Your task to perform on an android device: Go to accessibility settings Image 0: 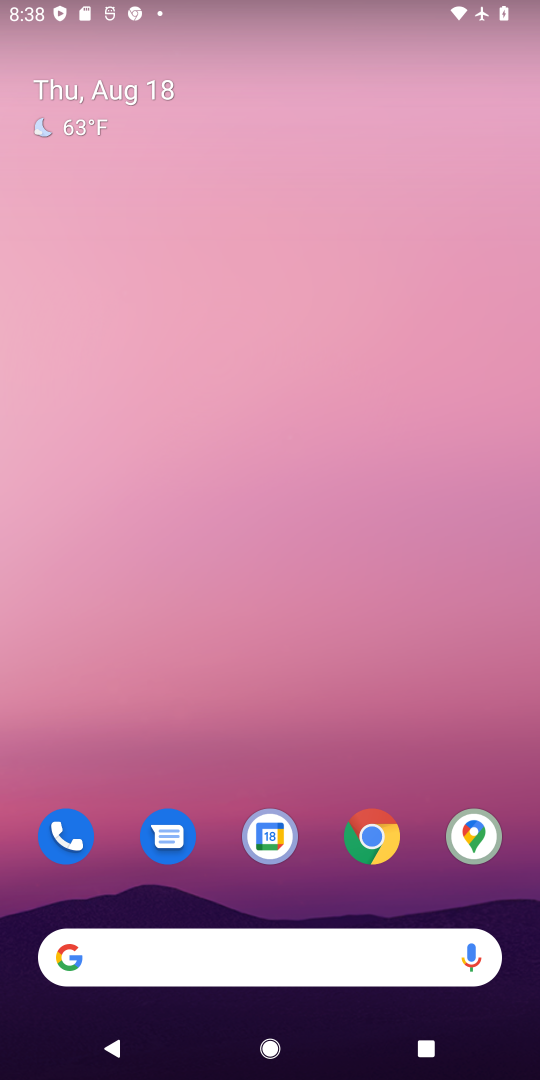
Step 0: drag from (320, 885) to (339, 175)
Your task to perform on an android device: Go to accessibility settings Image 1: 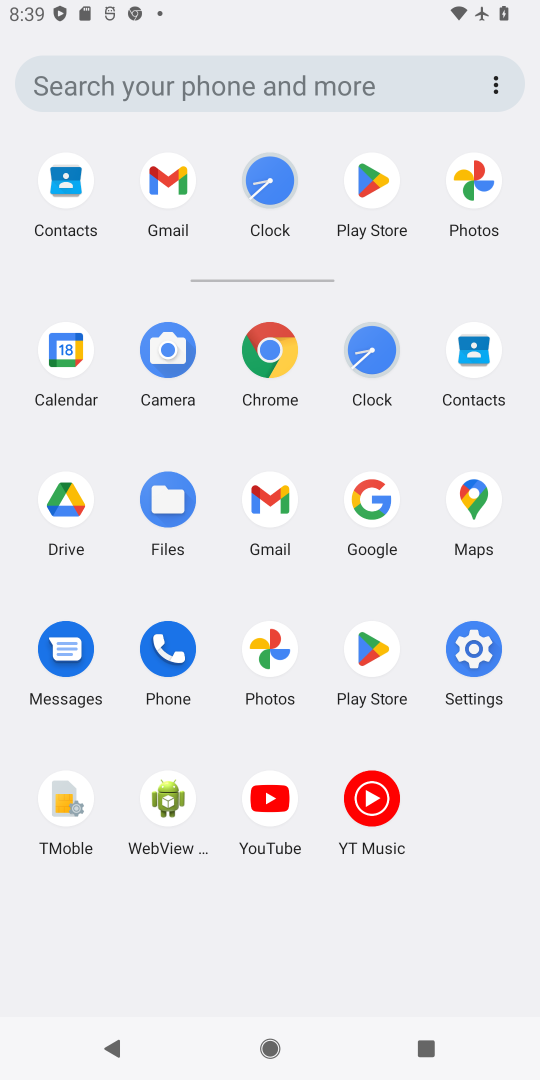
Step 1: click (480, 638)
Your task to perform on an android device: Go to accessibility settings Image 2: 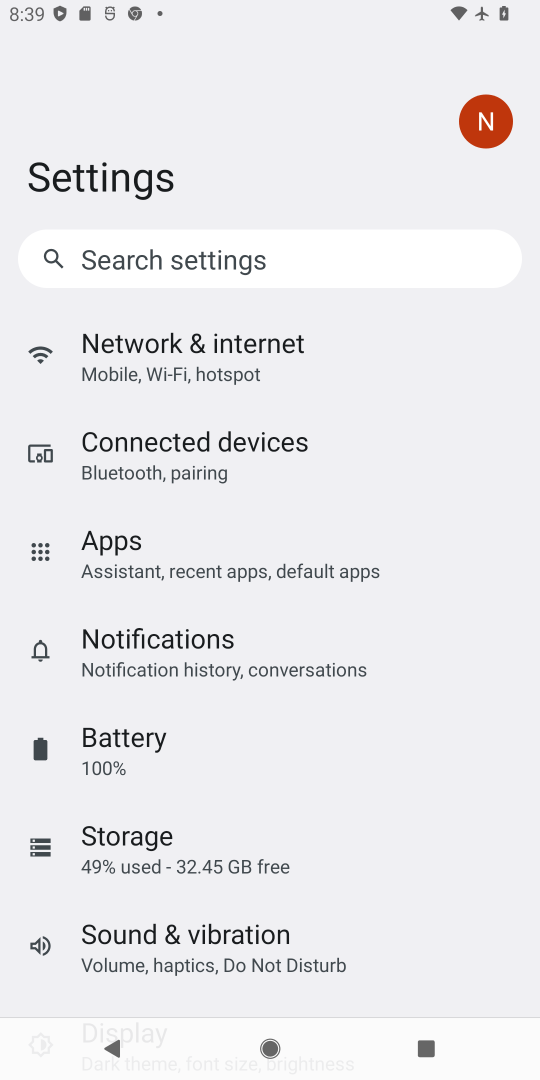
Step 2: drag from (327, 834) to (314, 214)
Your task to perform on an android device: Go to accessibility settings Image 3: 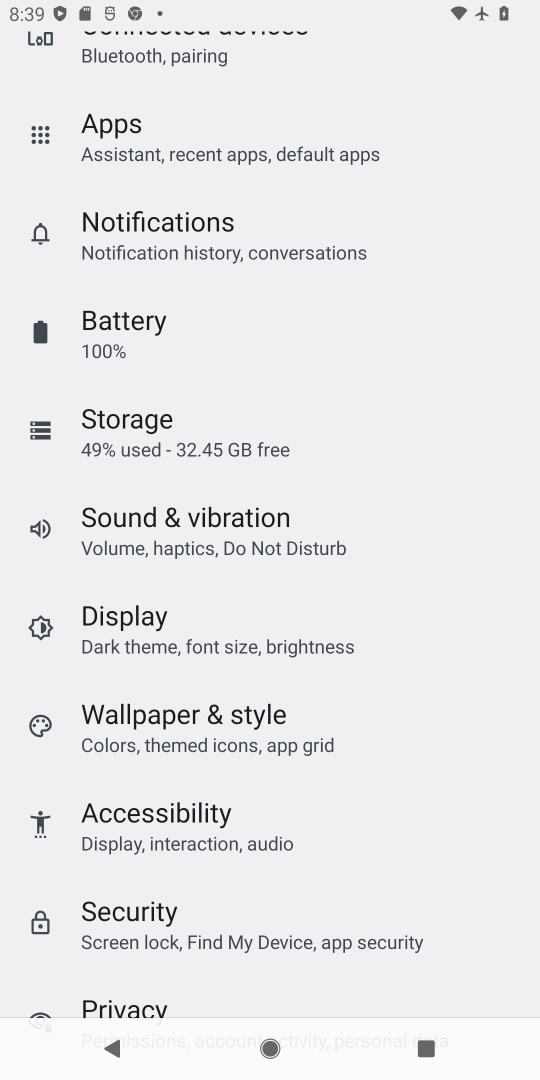
Step 3: click (194, 828)
Your task to perform on an android device: Go to accessibility settings Image 4: 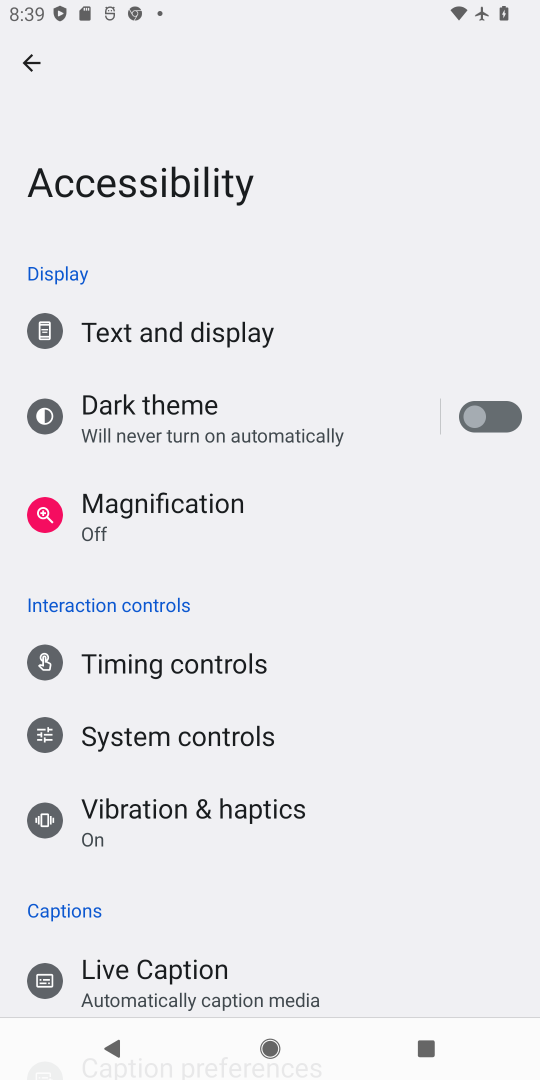
Step 4: task complete